Your task to perform on an android device: Open display settings Image 0: 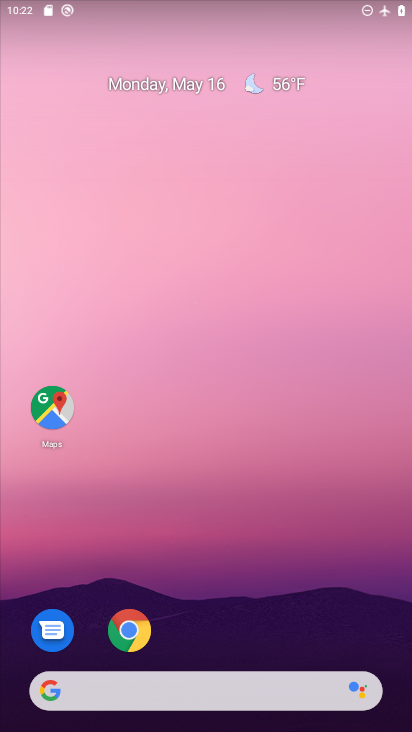
Step 0: drag from (248, 602) to (327, 138)
Your task to perform on an android device: Open display settings Image 1: 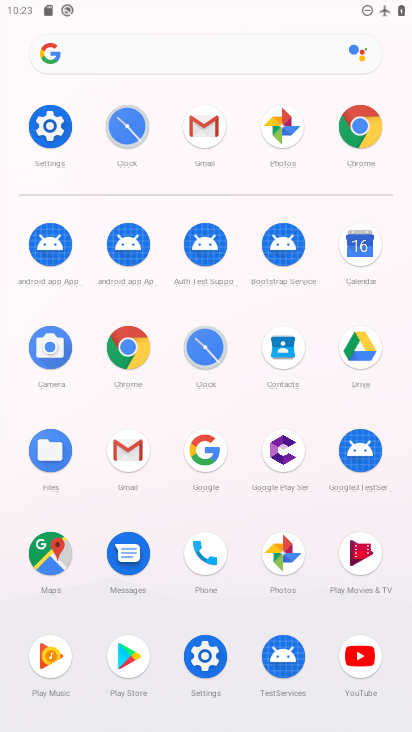
Step 1: click (52, 117)
Your task to perform on an android device: Open display settings Image 2: 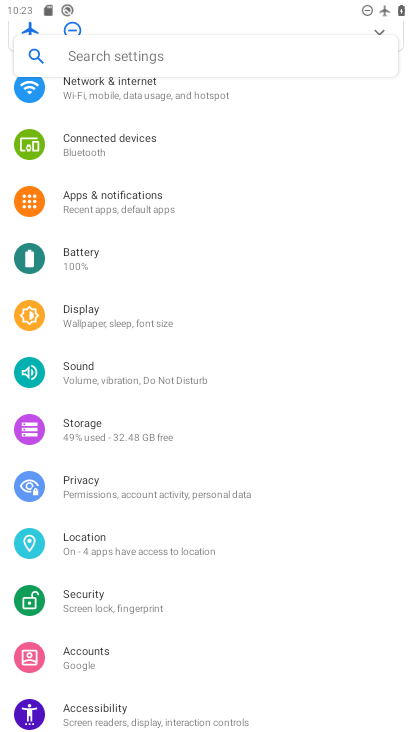
Step 2: click (130, 318)
Your task to perform on an android device: Open display settings Image 3: 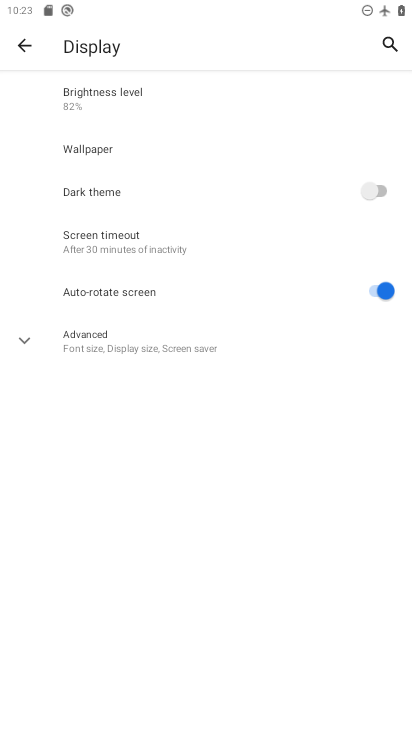
Step 3: task complete